Your task to perform on an android device: open app "HBO Max: Stream TV & Movies" Image 0: 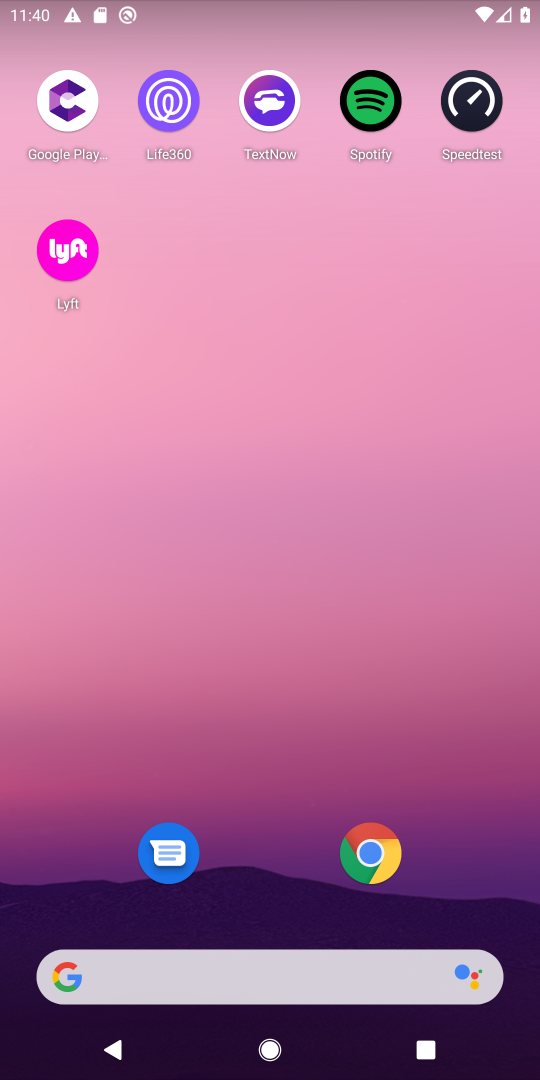
Step 0: drag from (272, 849) to (303, 278)
Your task to perform on an android device: open app "HBO Max: Stream TV & Movies" Image 1: 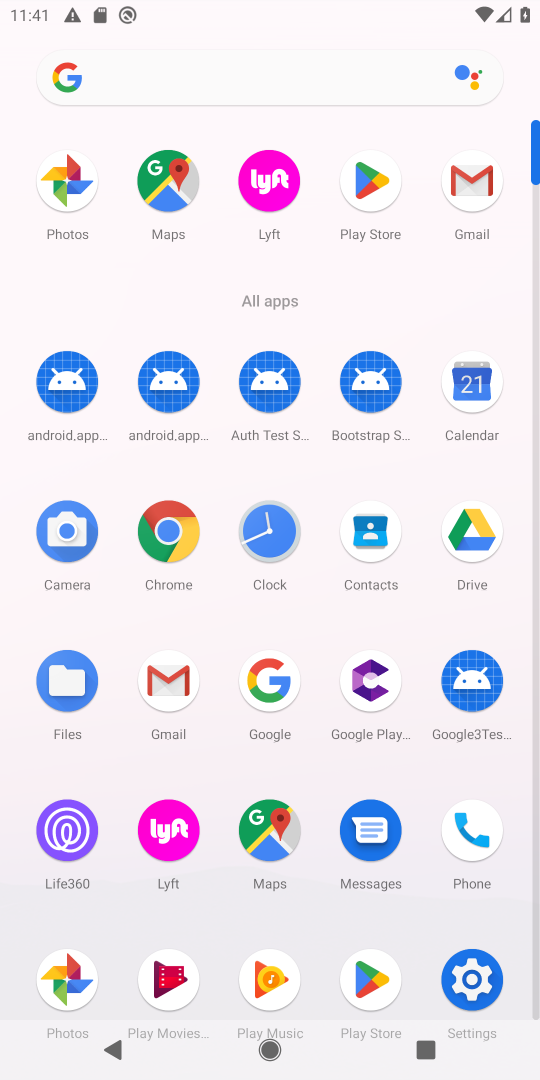
Step 1: click (366, 972)
Your task to perform on an android device: open app "HBO Max: Stream TV & Movies" Image 2: 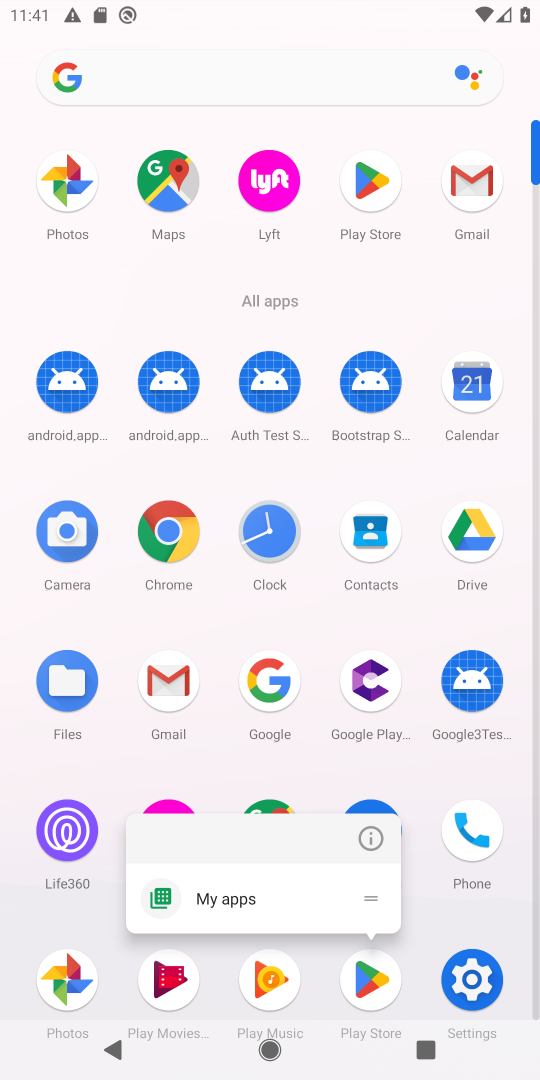
Step 2: click (355, 163)
Your task to perform on an android device: open app "HBO Max: Stream TV & Movies" Image 3: 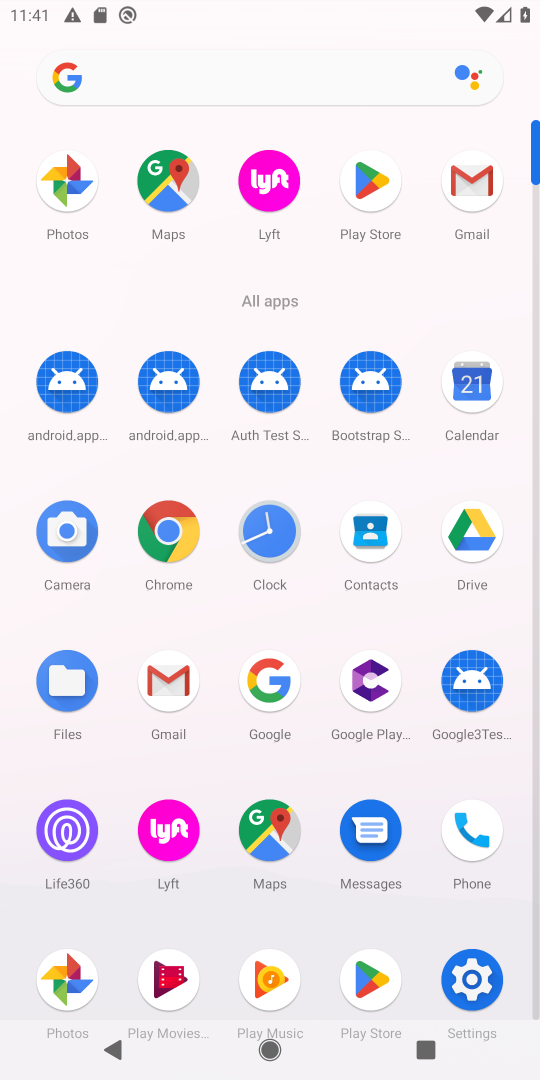
Step 3: click (355, 169)
Your task to perform on an android device: open app "HBO Max: Stream TV & Movies" Image 4: 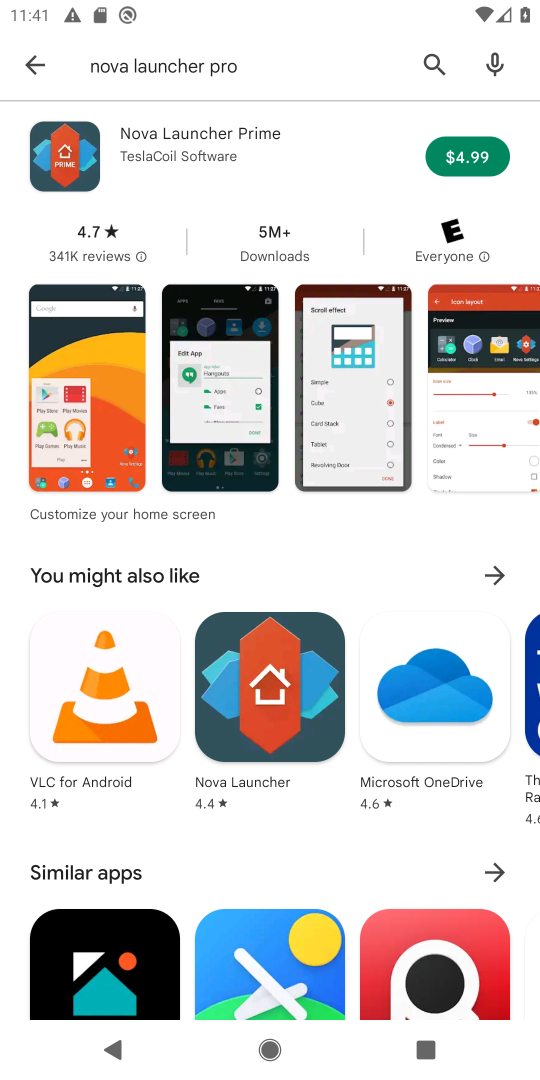
Step 4: click (42, 63)
Your task to perform on an android device: open app "HBO Max: Stream TV & Movies" Image 5: 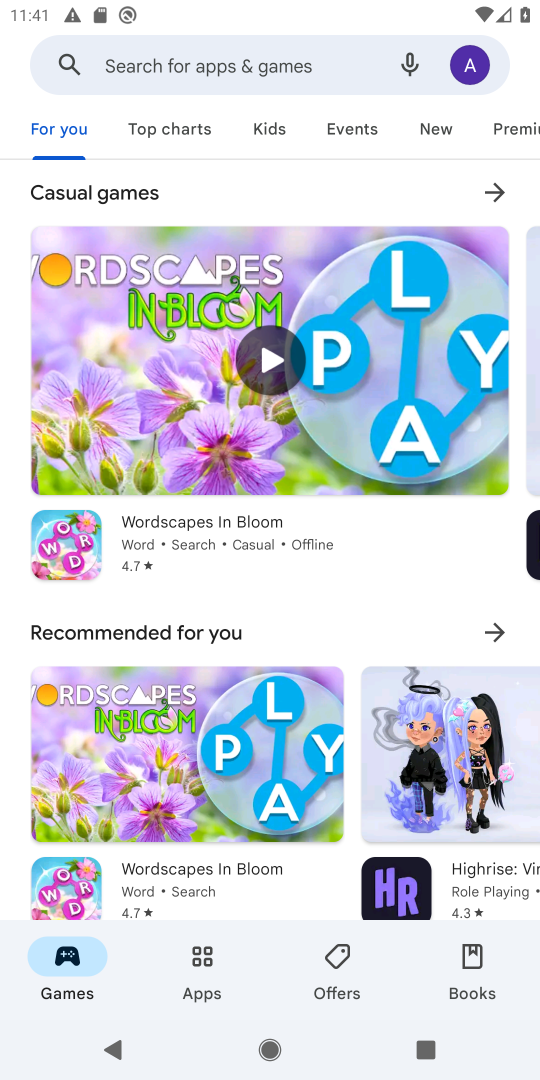
Step 5: click (274, 65)
Your task to perform on an android device: open app "HBO Max: Stream TV & Movies" Image 6: 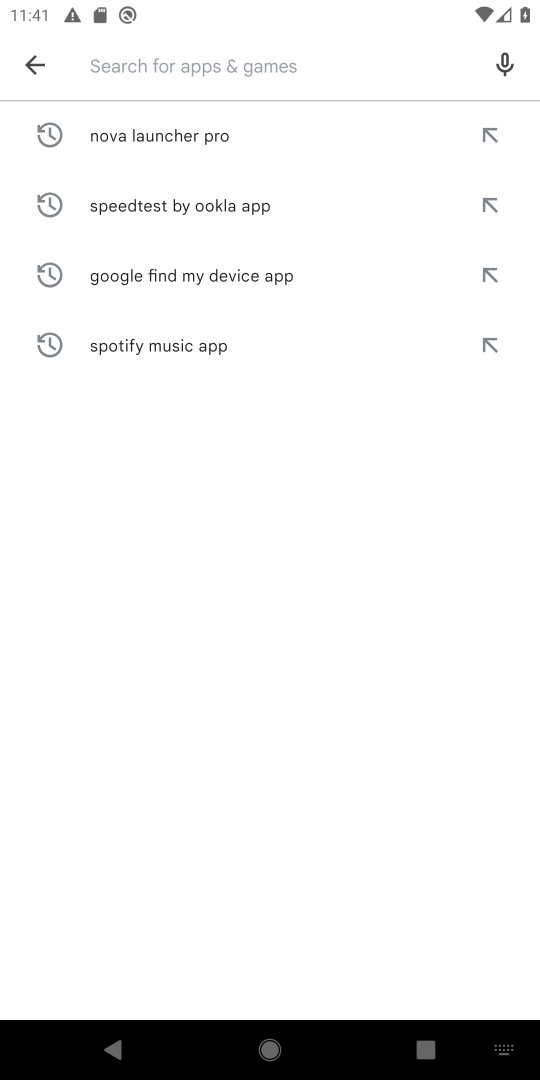
Step 6: type "HBO Max: Stream TV & Movies "
Your task to perform on an android device: open app "HBO Max: Stream TV & Movies" Image 7: 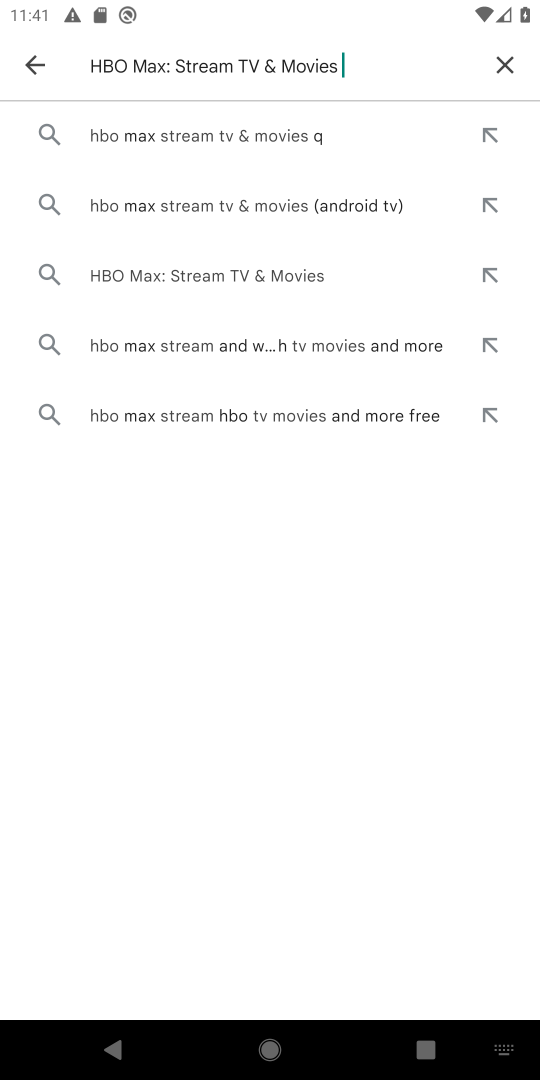
Step 7: click (216, 130)
Your task to perform on an android device: open app "HBO Max: Stream TV & Movies" Image 8: 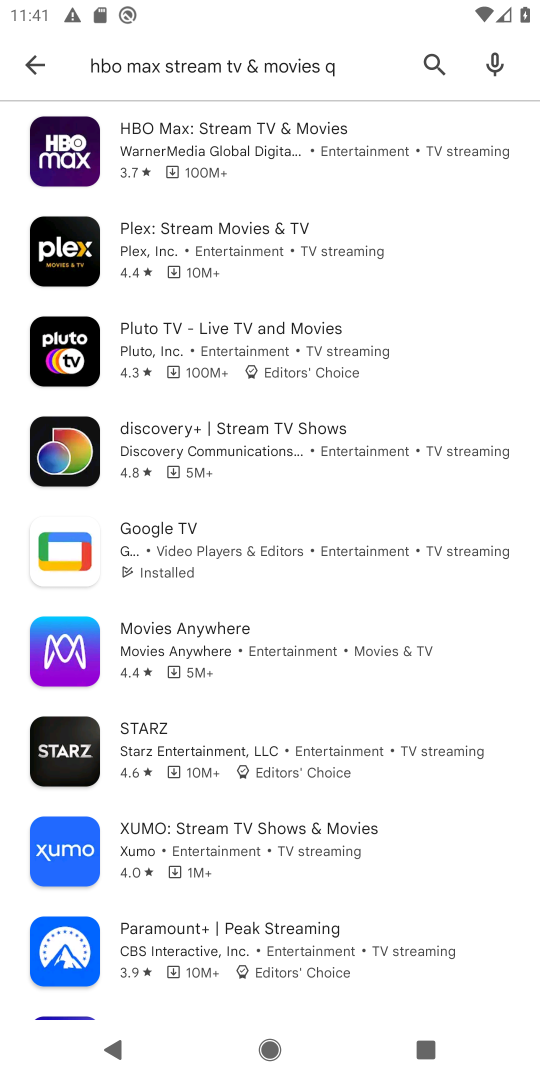
Step 8: click (182, 146)
Your task to perform on an android device: open app "HBO Max: Stream TV & Movies" Image 9: 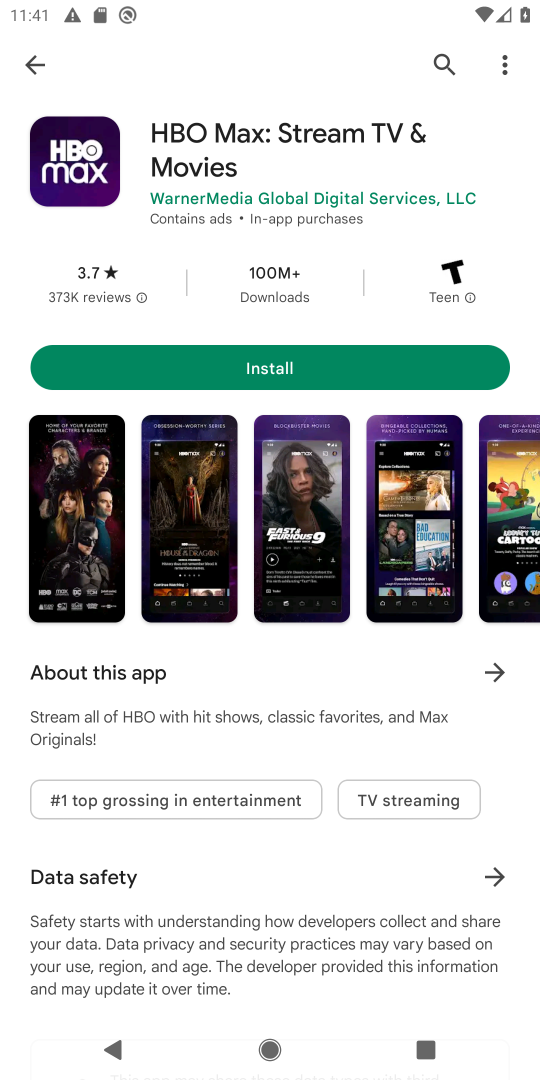
Step 9: click (287, 363)
Your task to perform on an android device: open app "HBO Max: Stream TV & Movies" Image 10: 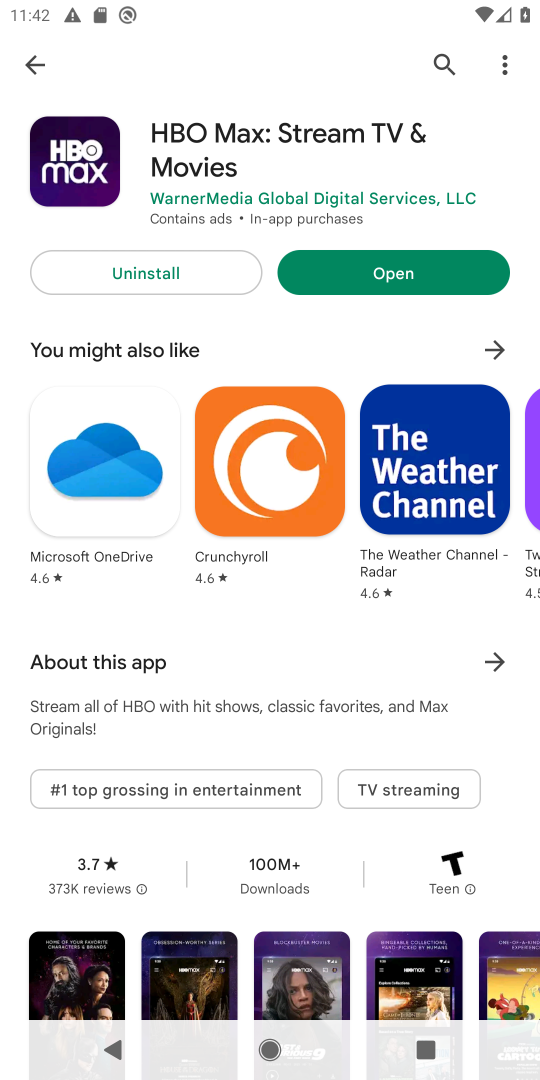
Step 10: click (406, 265)
Your task to perform on an android device: open app "HBO Max: Stream TV & Movies" Image 11: 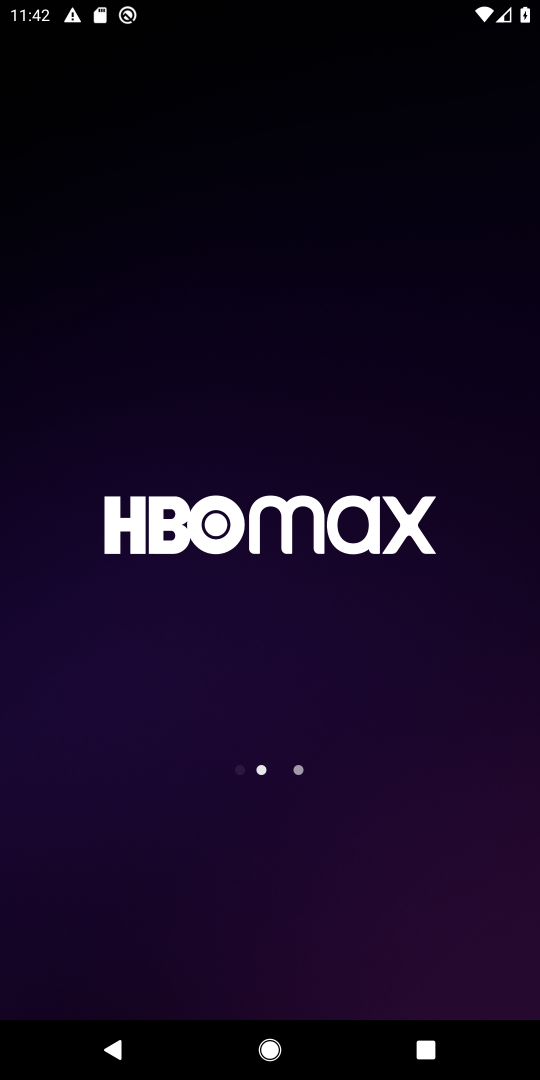
Step 11: task complete